Your task to perform on an android device: turn off javascript in the chrome app Image 0: 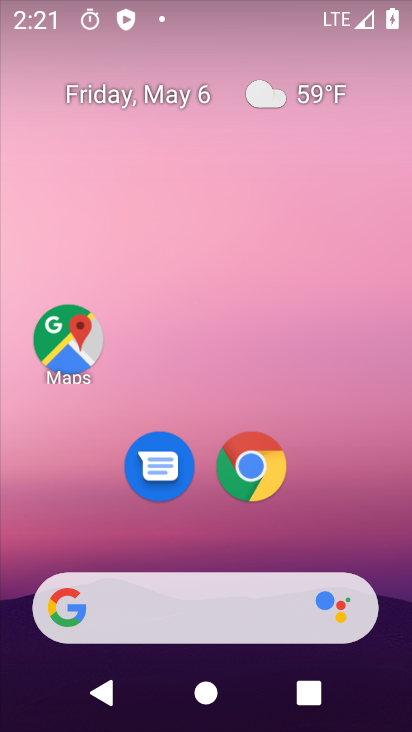
Step 0: press home button
Your task to perform on an android device: turn off javascript in the chrome app Image 1: 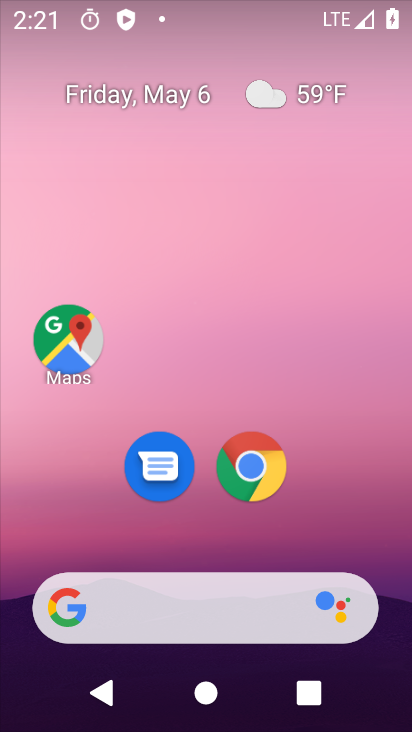
Step 1: click (242, 450)
Your task to perform on an android device: turn off javascript in the chrome app Image 2: 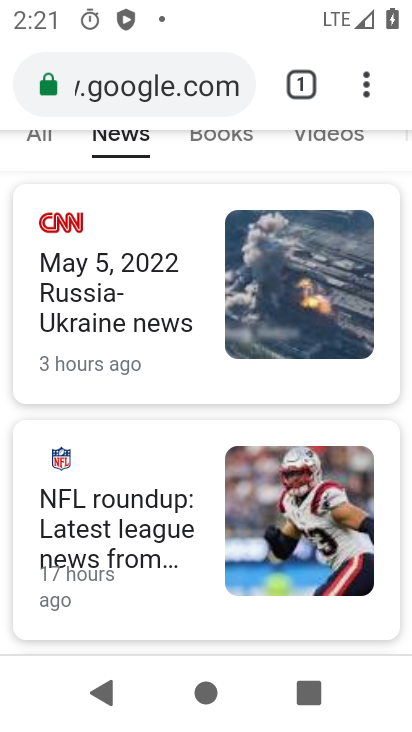
Step 2: drag from (373, 86) to (271, 486)
Your task to perform on an android device: turn off javascript in the chrome app Image 3: 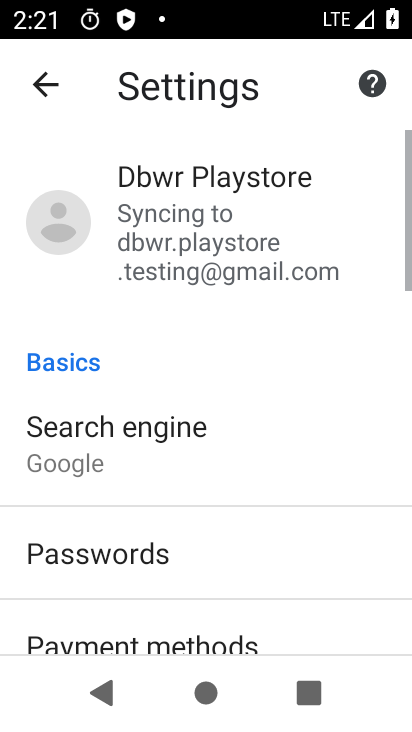
Step 3: drag from (188, 526) to (283, 82)
Your task to perform on an android device: turn off javascript in the chrome app Image 4: 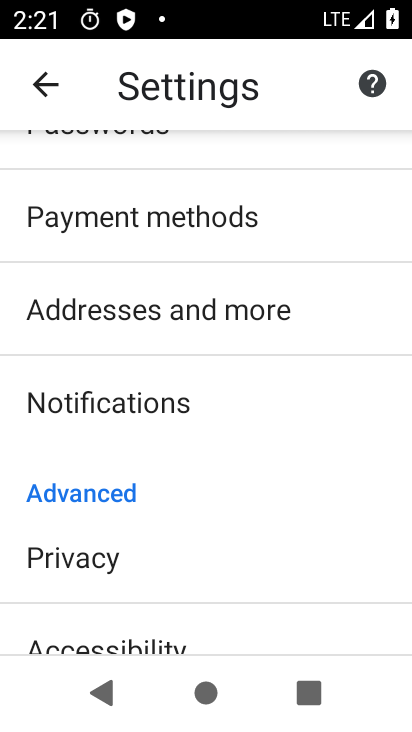
Step 4: drag from (273, 376) to (303, 214)
Your task to perform on an android device: turn off javascript in the chrome app Image 5: 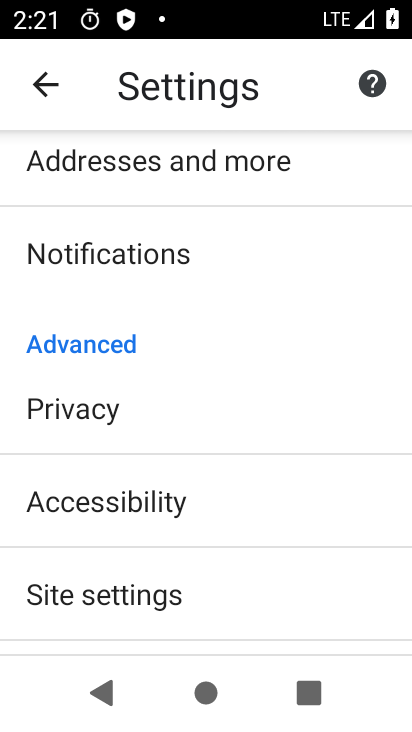
Step 5: click (149, 598)
Your task to perform on an android device: turn off javascript in the chrome app Image 6: 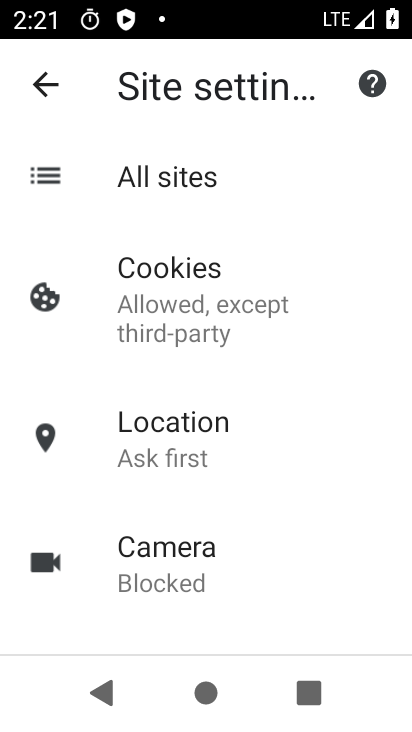
Step 6: drag from (288, 541) to (359, 112)
Your task to perform on an android device: turn off javascript in the chrome app Image 7: 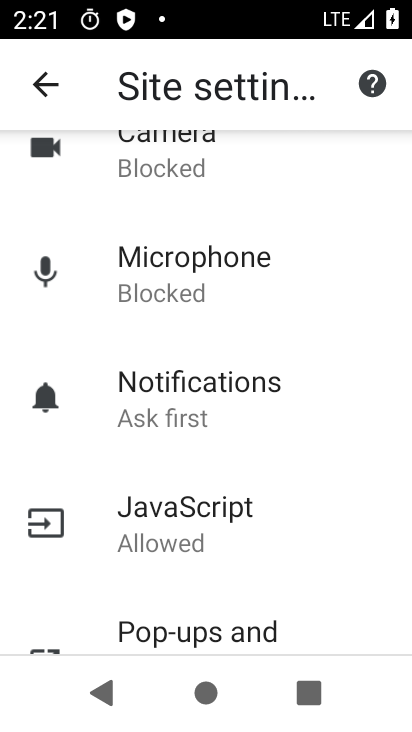
Step 7: click (246, 512)
Your task to perform on an android device: turn off javascript in the chrome app Image 8: 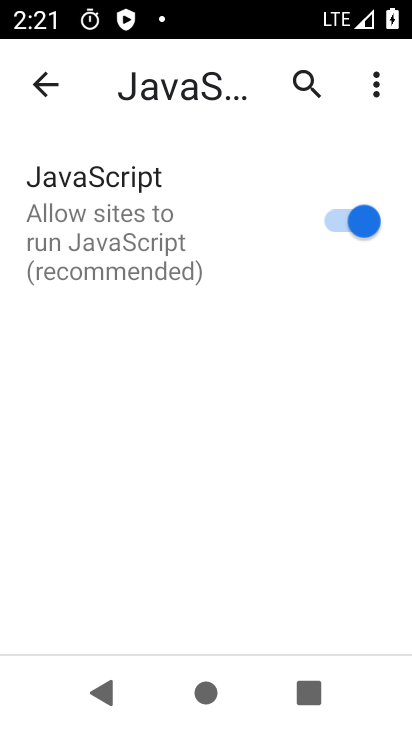
Step 8: click (359, 230)
Your task to perform on an android device: turn off javascript in the chrome app Image 9: 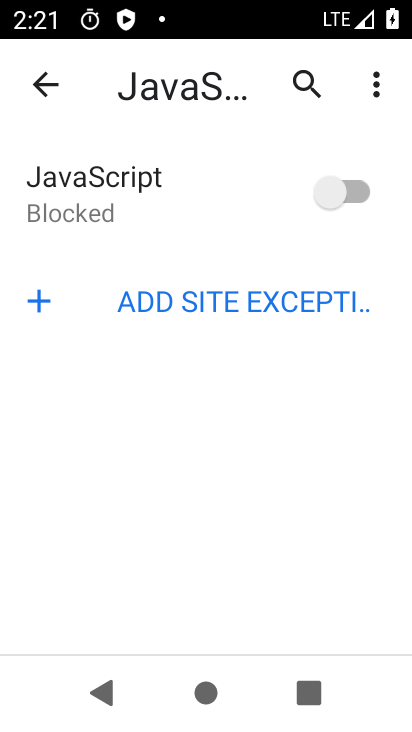
Step 9: task complete